Your task to perform on an android device: Toggle the flashlight Image 0: 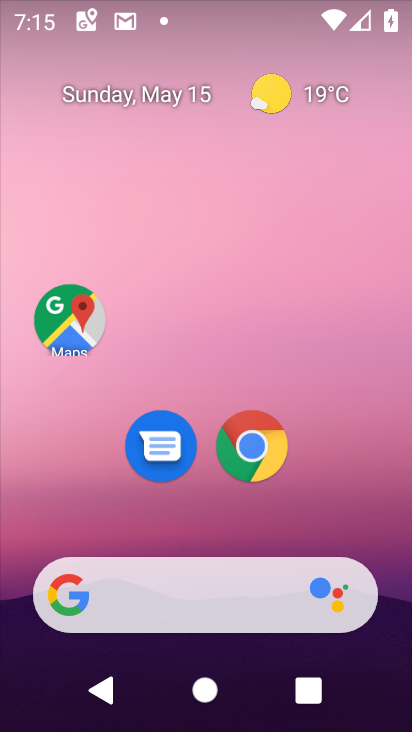
Step 0: drag from (267, 605) to (167, 294)
Your task to perform on an android device: Toggle the flashlight Image 1: 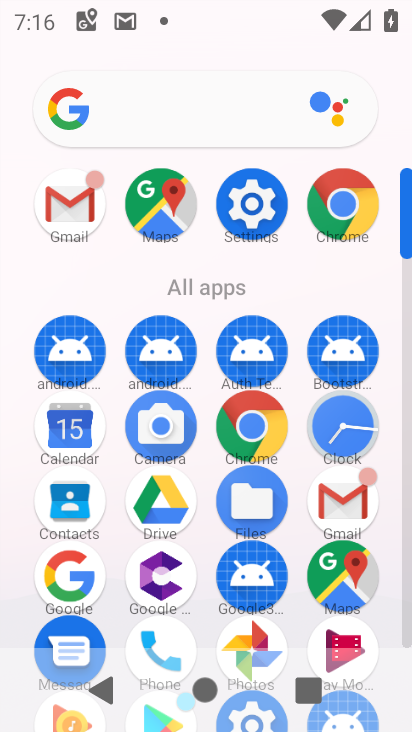
Step 1: click (243, 193)
Your task to perform on an android device: Toggle the flashlight Image 2: 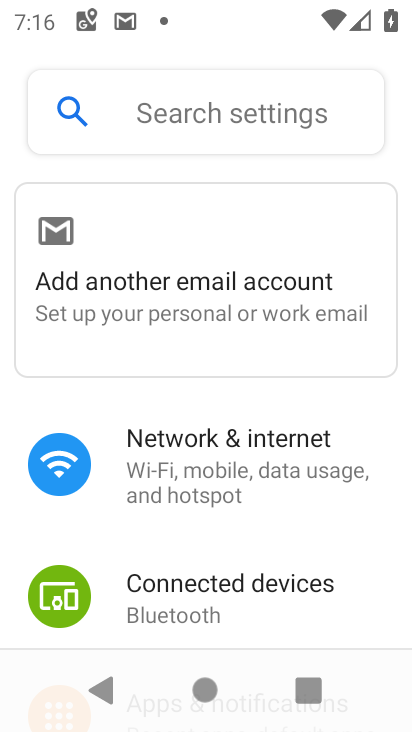
Step 2: click (163, 113)
Your task to perform on an android device: Toggle the flashlight Image 3: 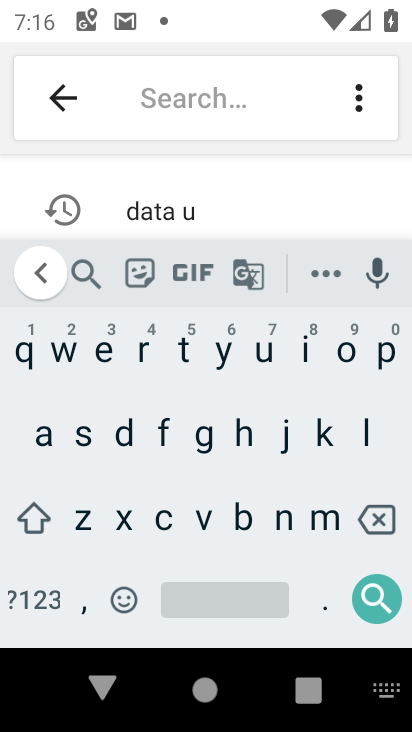
Step 3: click (173, 431)
Your task to perform on an android device: Toggle the flashlight Image 4: 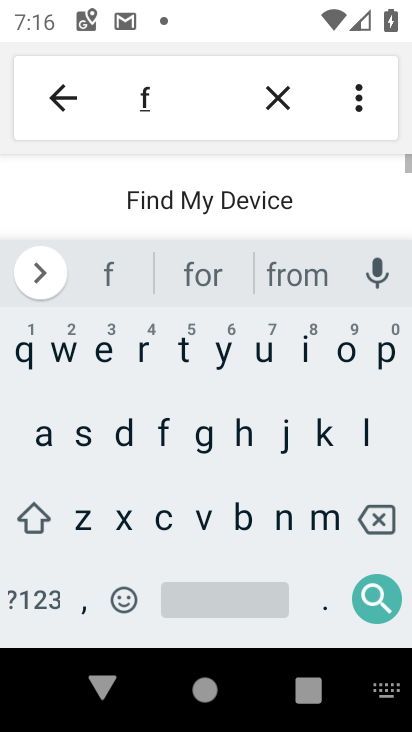
Step 4: click (371, 435)
Your task to perform on an android device: Toggle the flashlight Image 5: 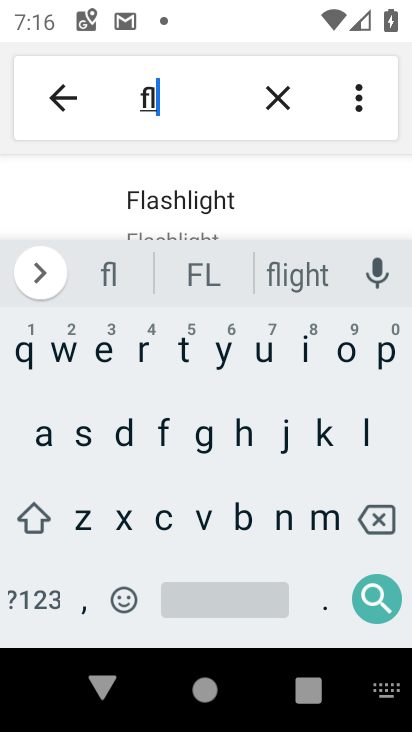
Step 5: click (191, 211)
Your task to perform on an android device: Toggle the flashlight Image 6: 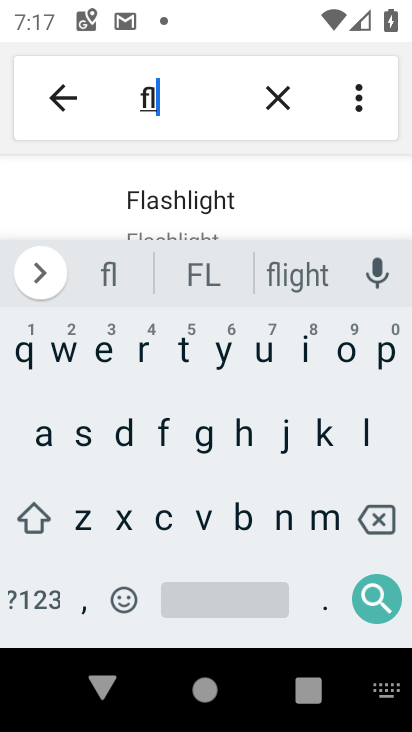
Step 6: click (136, 202)
Your task to perform on an android device: Toggle the flashlight Image 7: 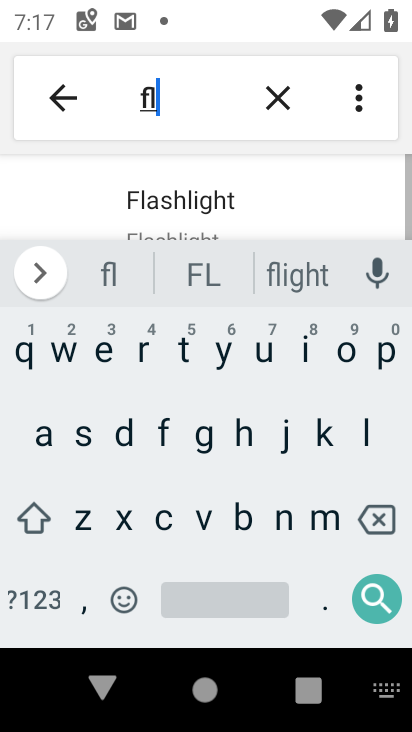
Step 7: task complete